Your task to perform on an android device: change text size in settings app Image 0: 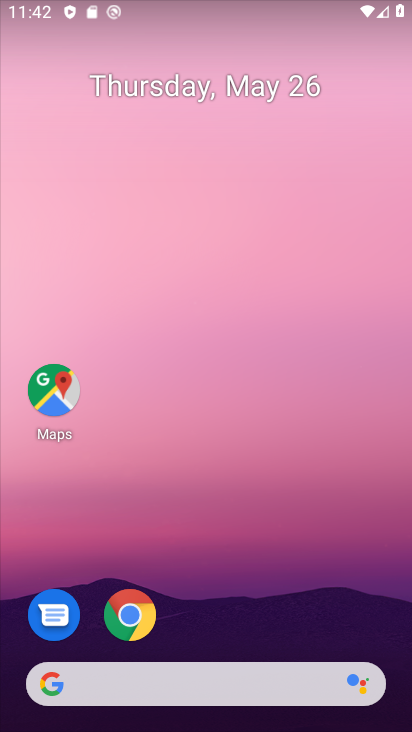
Step 0: drag from (208, 649) to (282, 288)
Your task to perform on an android device: change text size in settings app Image 1: 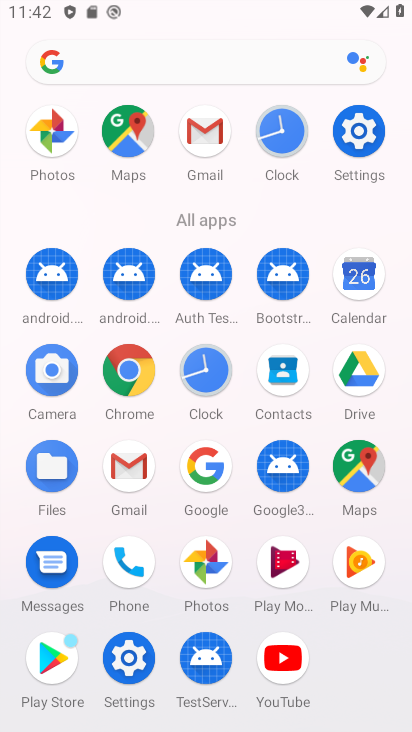
Step 1: click (122, 654)
Your task to perform on an android device: change text size in settings app Image 2: 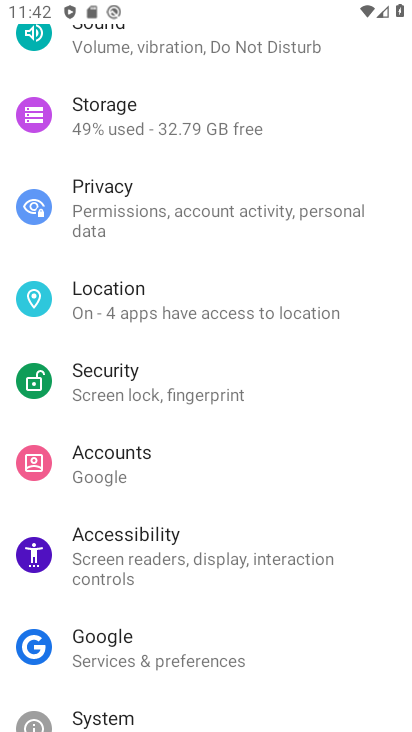
Step 2: drag from (157, 636) to (221, 578)
Your task to perform on an android device: change text size in settings app Image 3: 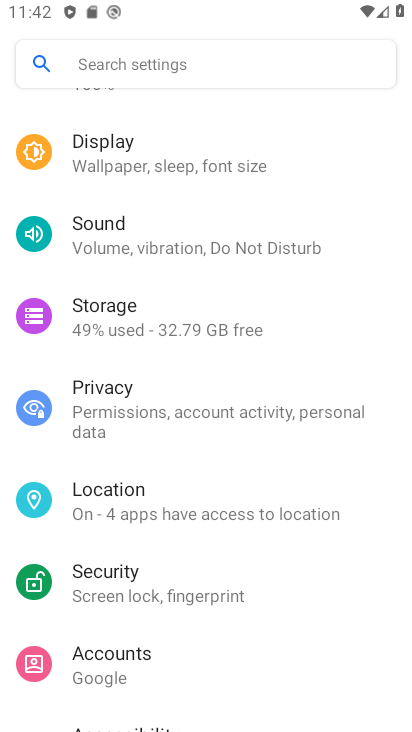
Step 3: click (211, 167)
Your task to perform on an android device: change text size in settings app Image 4: 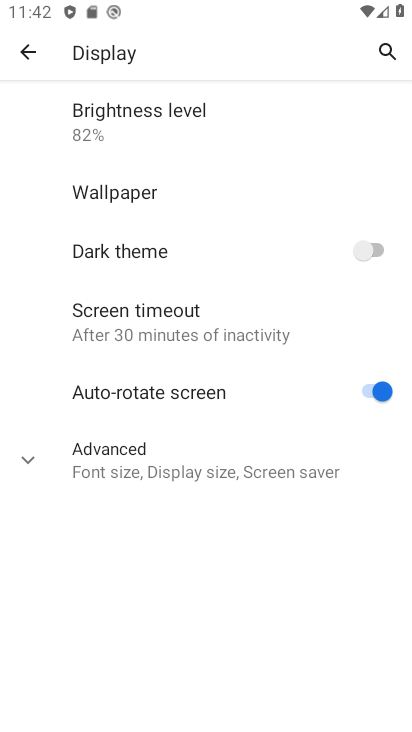
Step 4: click (206, 459)
Your task to perform on an android device: change text size in settings app Image 5: 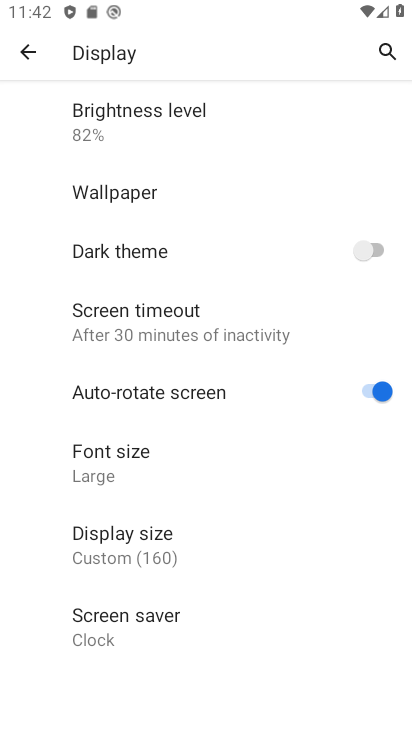
Step 5: click (154, 453)
Your task to perform on an android device: change text size in settings app Image 6: 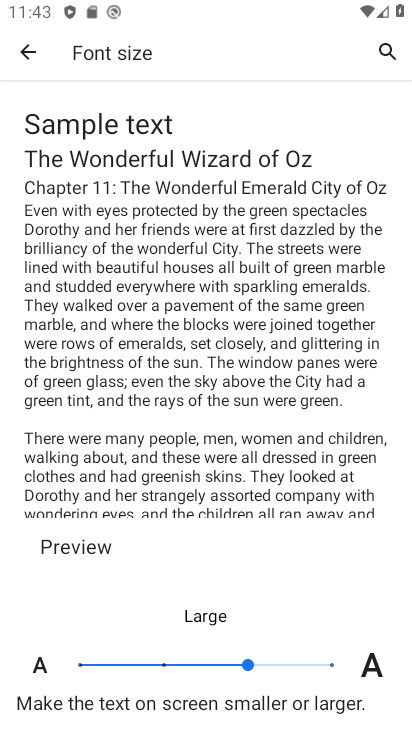
Step 6: task complete